Your task to perform on an android device: empty trash in google photos Image 0: 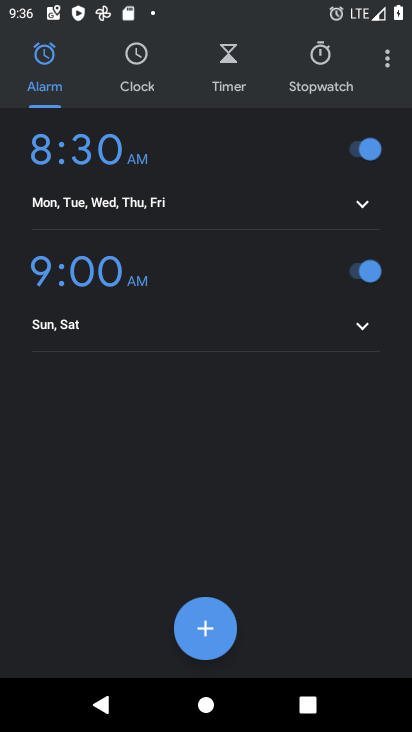
Step 0: press home button
Your task to perform on an android device: empty trash in google photos Image 1: 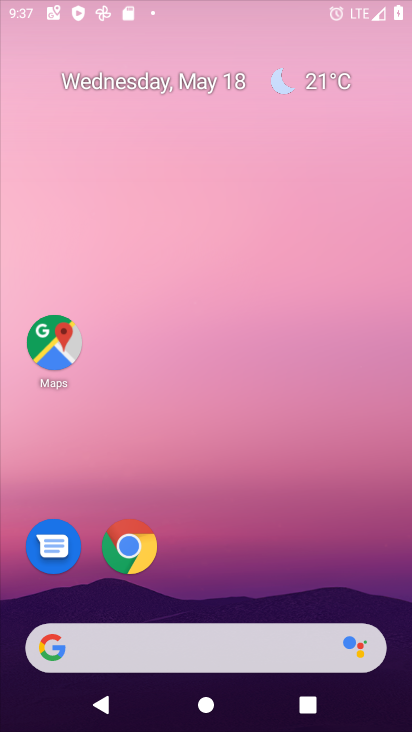
Step 1: drag from (386, 644) to (382, 462)
Your task to perform on an android device: empty trash in google photos Image 2: 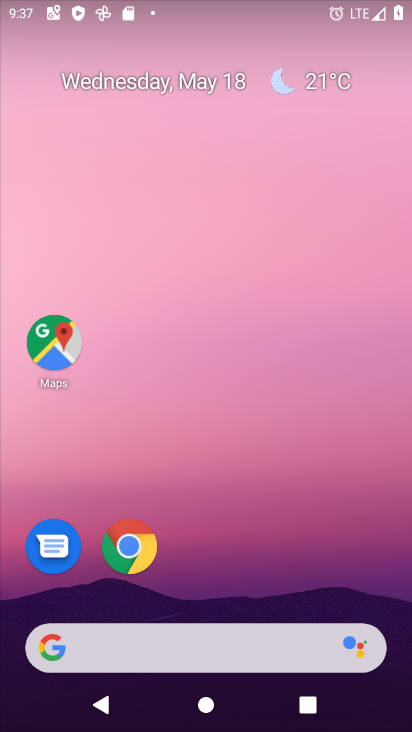
Step 2: drag from (393, 644) to (292, 25)
Your task to perform on an android device: empty trash in google photos Image 3: 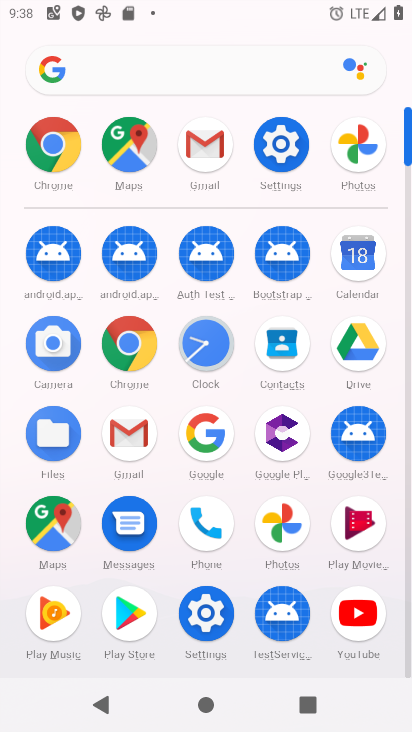
Step 3: click (265, 513)
Your task to perform on an android device: empty trash in google photos Image 4: 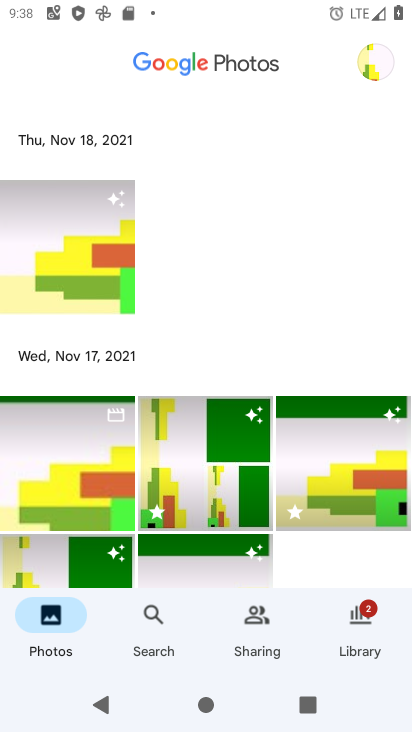
Step 4: click (379, 61)
Your task to perform on an android device: empty trash in google photos Image 5: 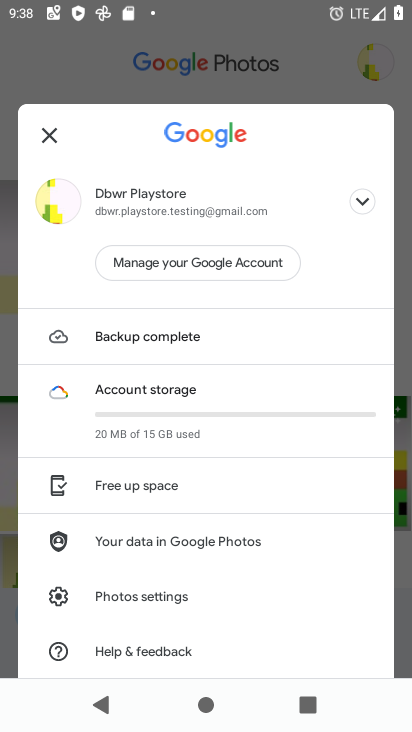
Step 5: press back button
Your task to perform on an android device: empty trash in google photos Image 6: 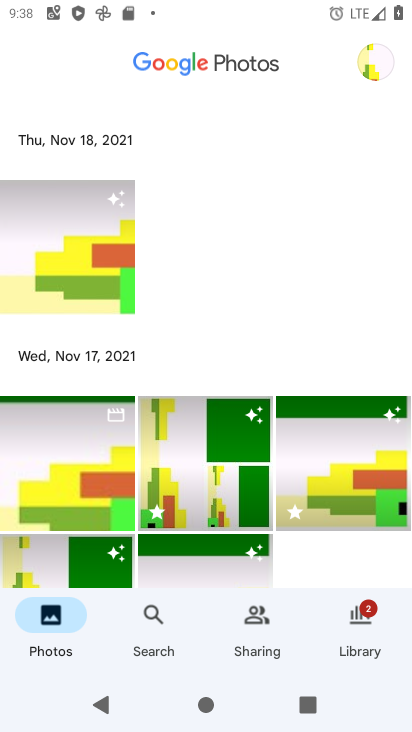
Step 6: click (373, 619)
Your task to perform on an android device: empty trash in google photos Image 7: 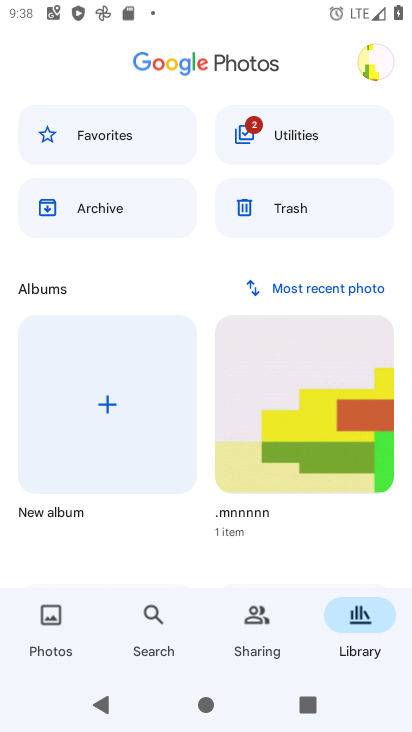
Step 7: click (348, 208)
Your task to perform on an android device: empty trash in google photos Image 8: 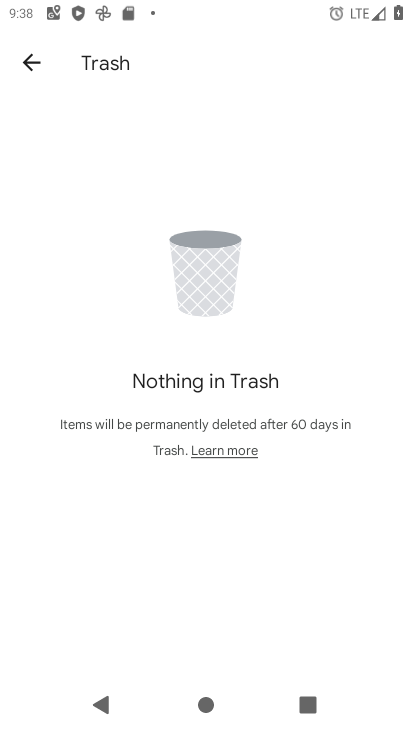
Step 8: task complete